Your task to perform on an android device: open chrome and create a bookmark for the current page Image 0: 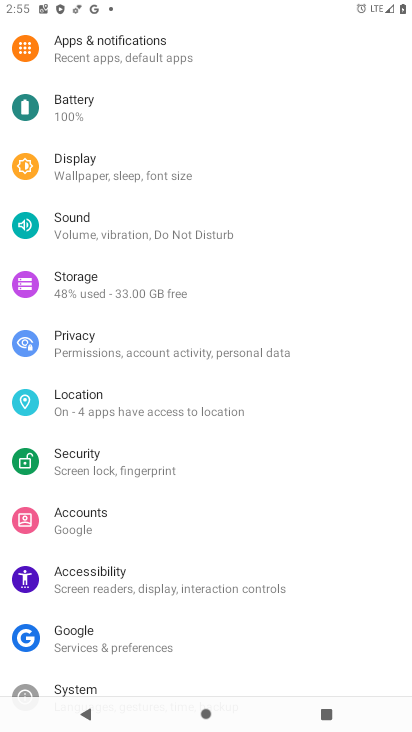
Step 0: press home button
Your task to perform on an android device: open chrome and create a bookmark for the current page Image 1: 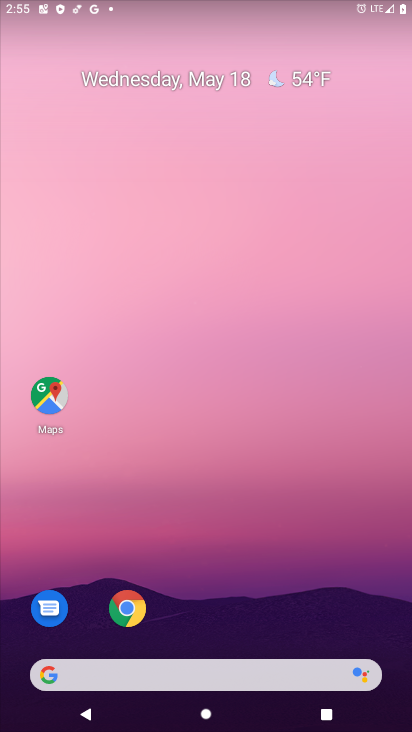
Step 1: click (128, 606)
Your task to perform on an android device: open chrome and create a bookmark for the current page Image 2: 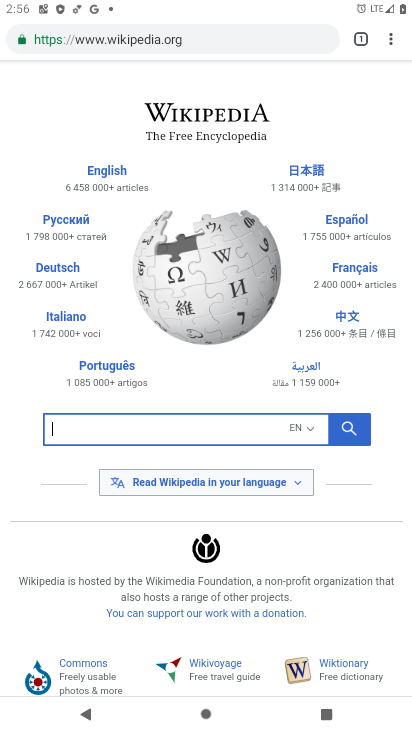
Step 2: click (388, 39)
Your task to perform on an android device: open chrome and create a bookmark for the current page Image 3: 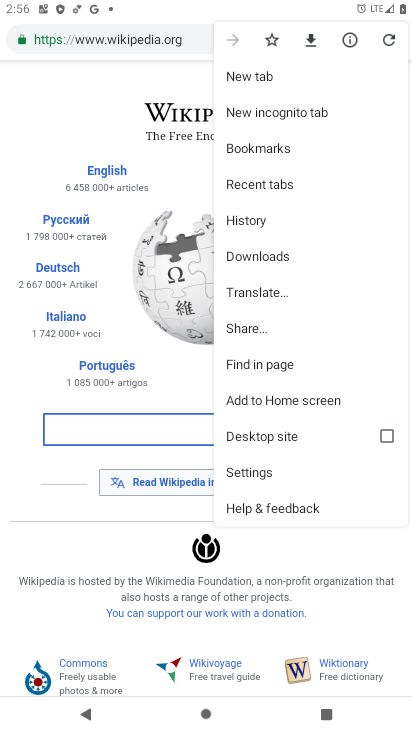
Step 3: click (270, 36)
Your task to perform on an android device: open chrome and create a bookmark for the current page Image 4: 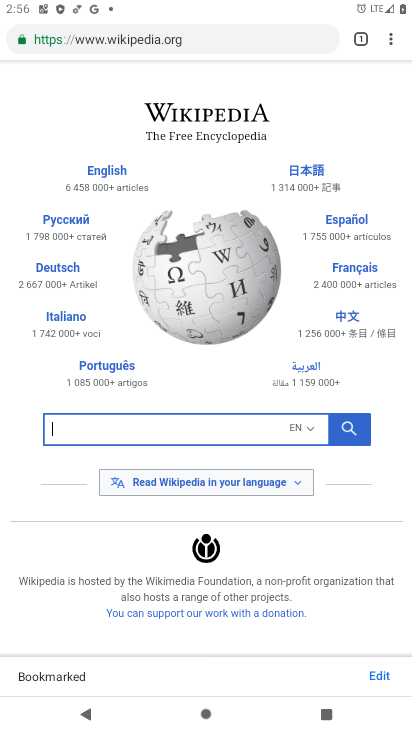
Step 4: task complete